Your task to perform on an android device: set the timer Image 0: 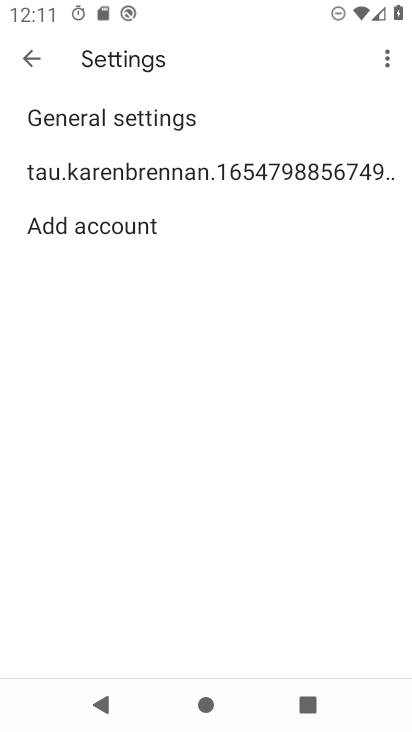
Step 0: press home button
Your task to perform on an android device: set the timer Image 1: 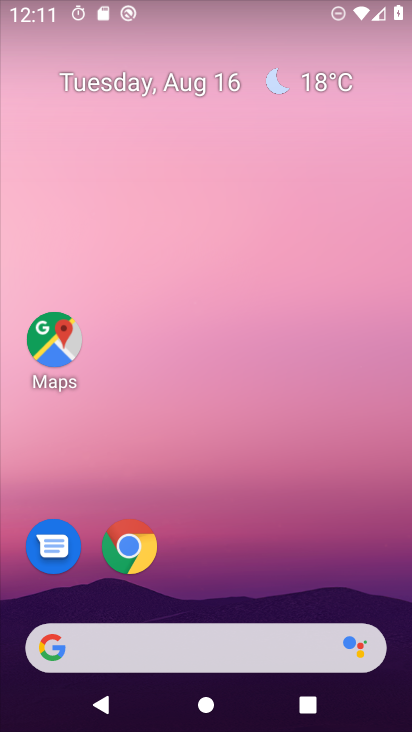
Step 1: drag from (208, 471) to (203, 52)
Your task to perform on an android device: set the timer Image 2: 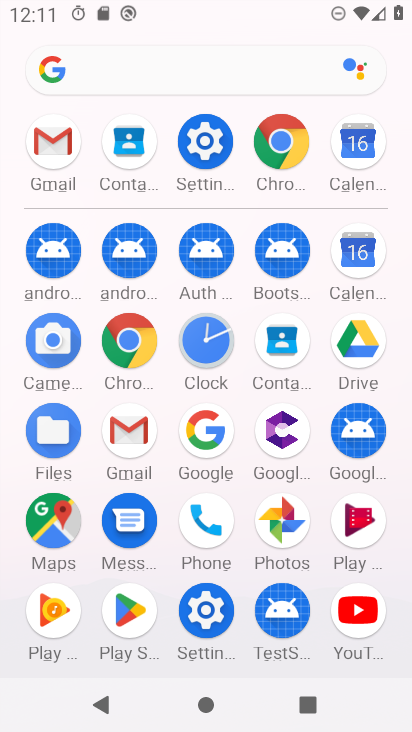
Step 2: click (211, 340)
Your task to perform on an android device: set the timer Image 3: 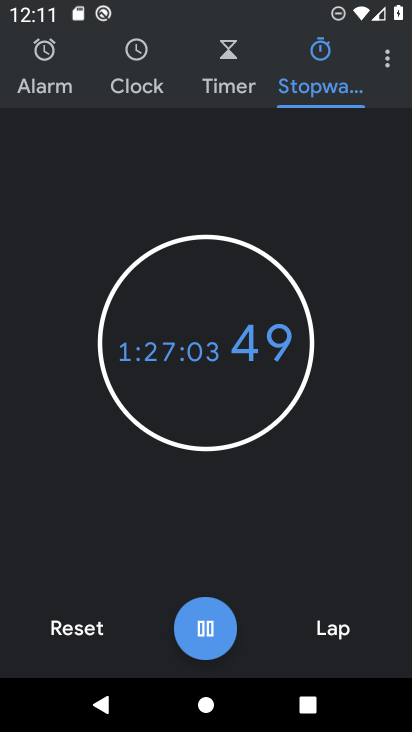
Step 3: click (235, 66)
Your task to perform on an android device: set the timer Image 4: 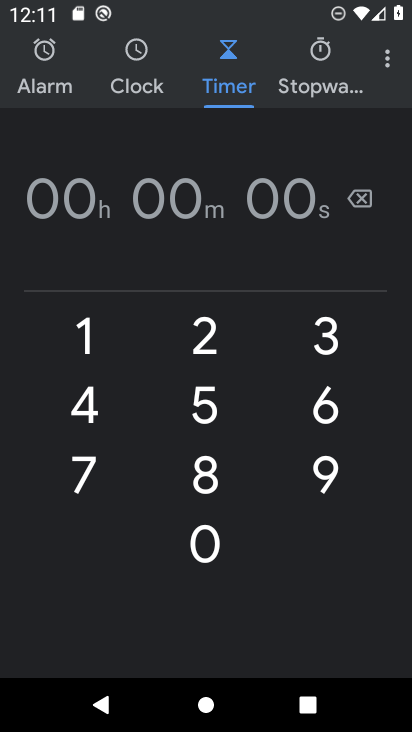
Step 4: click (196, 347)
Your task to perform on an android device: set the timer Image 5: 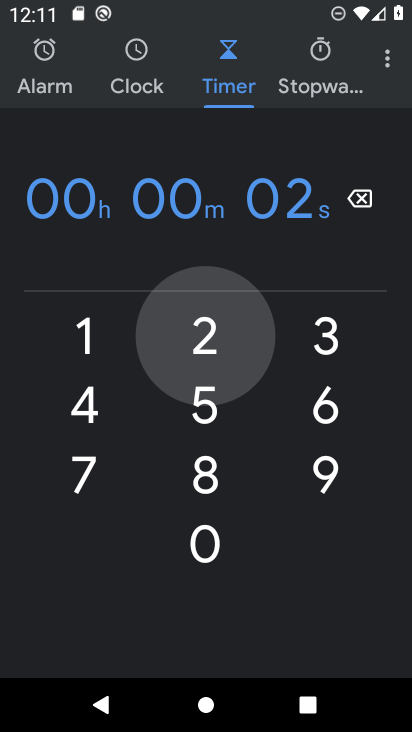
Step 5: click (212, 401)
Your task to perform on an android device: set the timer Image 6: 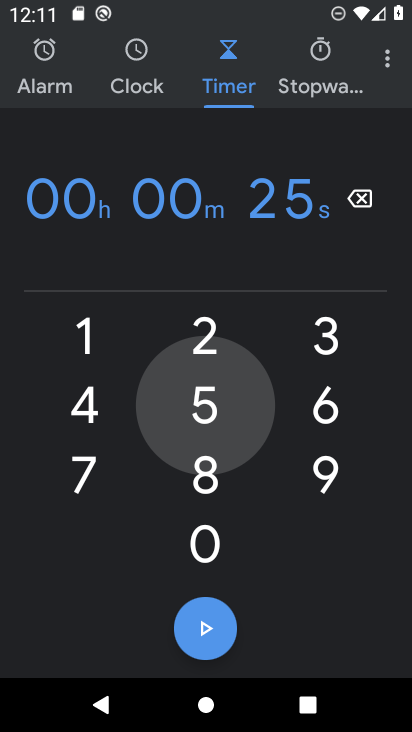
Step 6: click (206, 463)
Your task to perform on an android device: set the timer Image 7: 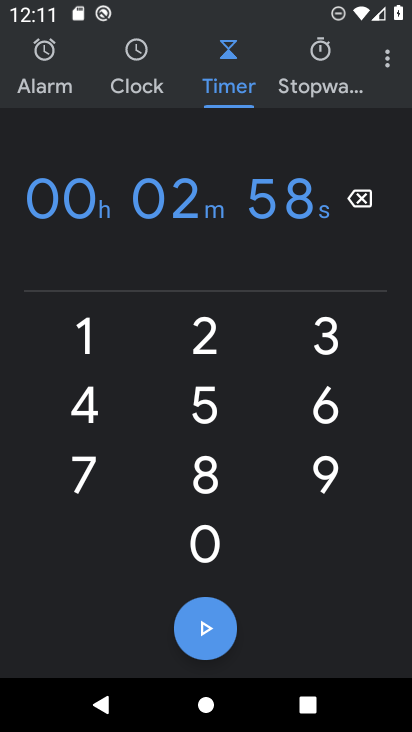
Step 7: click (192, 633)
Your task to perform on an android device: set the timer Image 8: 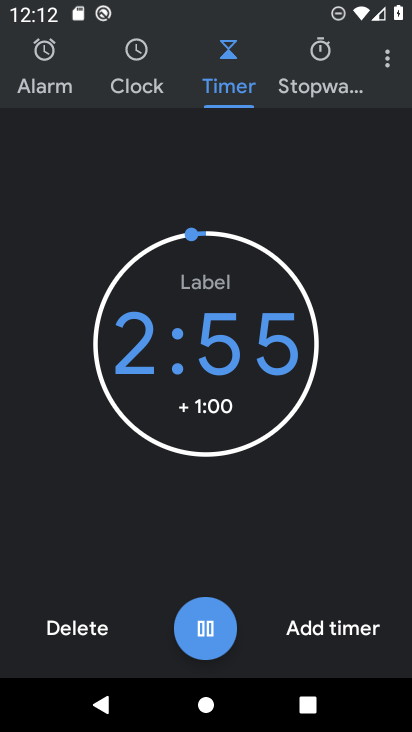
Step 8: task complete